Your task to perform on an android device: open chrome privacy settings Image 0: 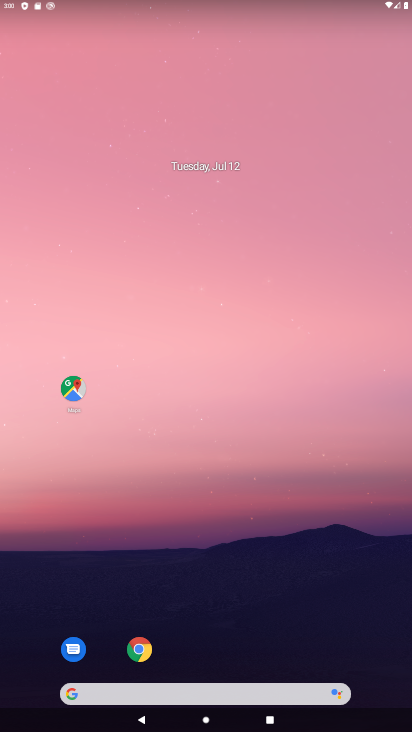
Step 0: click (133, 638)
Your task to perform on an android device: open chrome privacy settings Image 1: 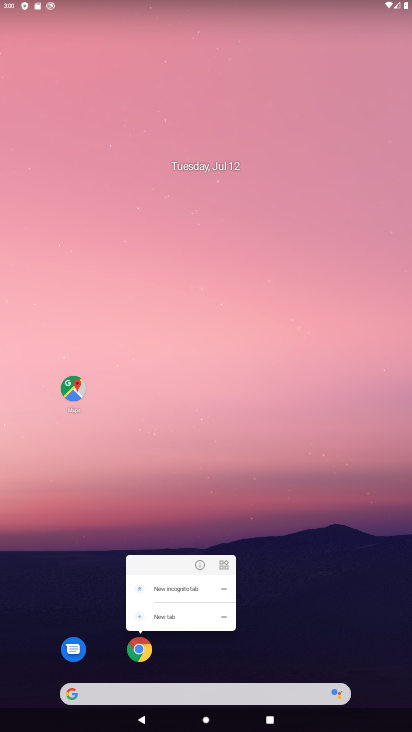
Step 1: click (140, 640)
Your task to perform on an android device: open chrome privacy settings Image 2: 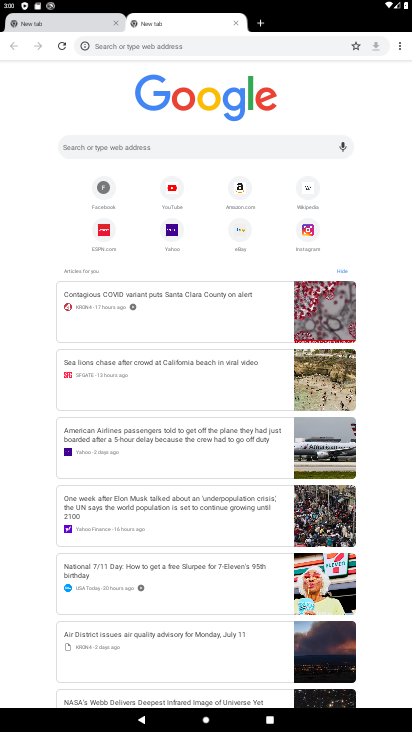
Step 2: click (400, 50)
Your task to perform on an android device: open chrome privacy settings Image 3: 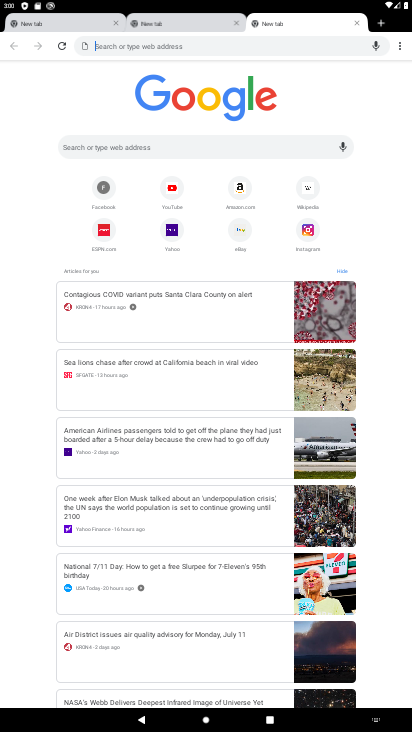
Step 3: click (400, 50)
Your task to perform on an android device: open chrome privacy settings Image 4: 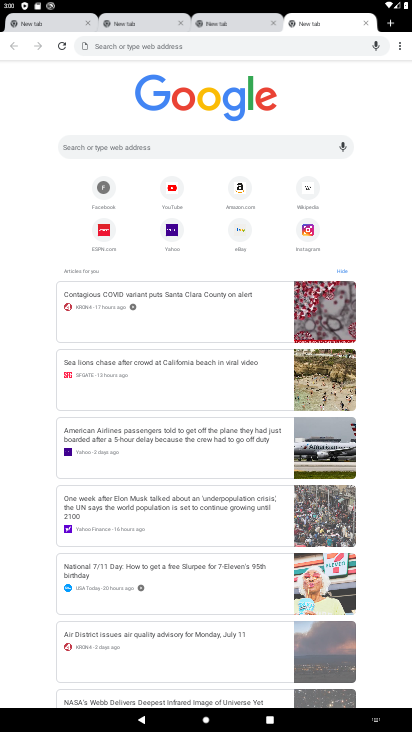
Step 4: click (400, 47)
Your task to perform on an android device: open chrome privacy settings Image 5: 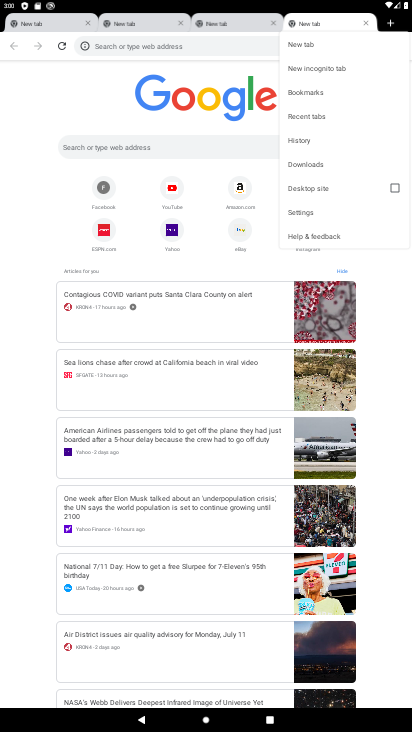
Step 5: click (301, 207)
Your task to perform on an android device: open chrome privacy settings Image 6: 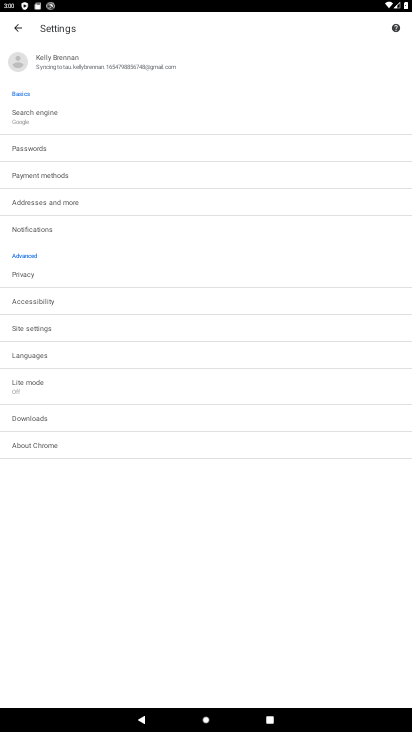
Step 6: click (31, 273)
Your task to perform on an android device: open chrome privacy settings Image 7: 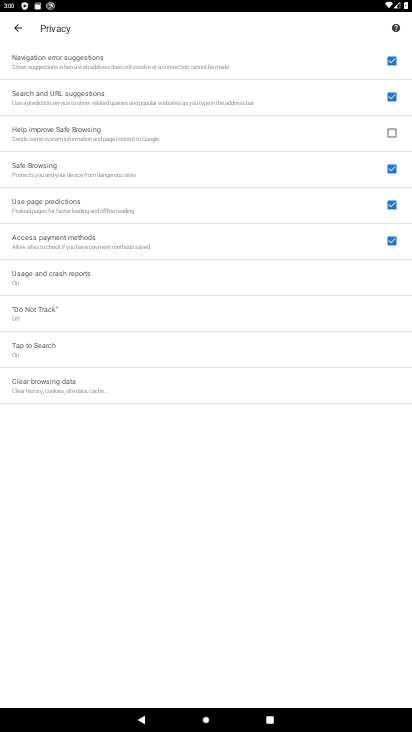
Step 7: task complete